Your task to perform on an android device: Open Yahoo.com Image 0: 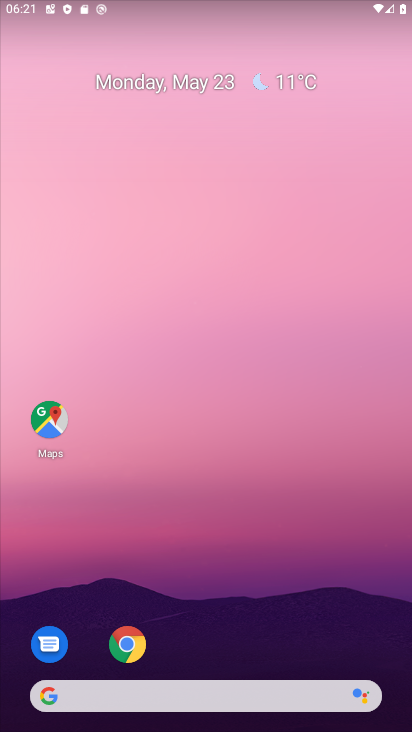
Step 0: click (130, 652)
Your task to perform on an android device: Open Yahoo.com Image 1: 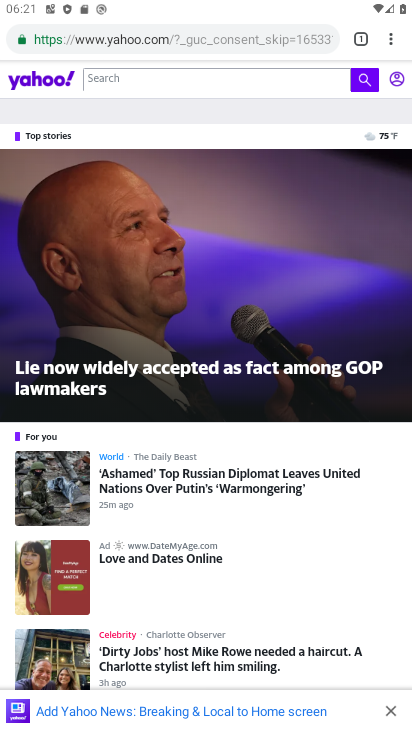
Step 1: task complete